Your task to perform on an android device: turn vacation reply on in the gmail app Image 0: 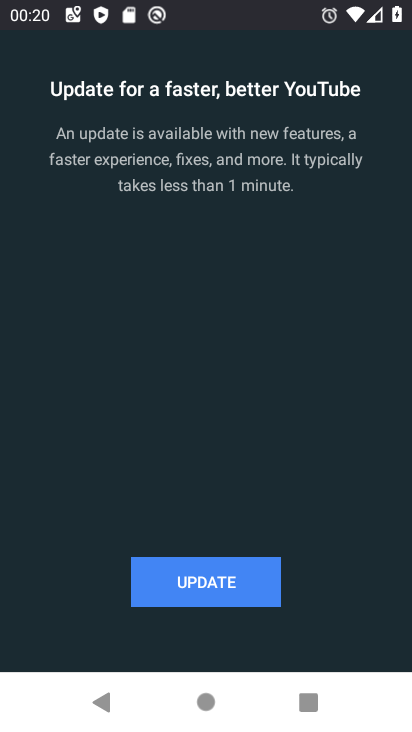
Step 0: press back button
Your task to perform on an android device: turn vacation reply on in the gmail app Image 1: 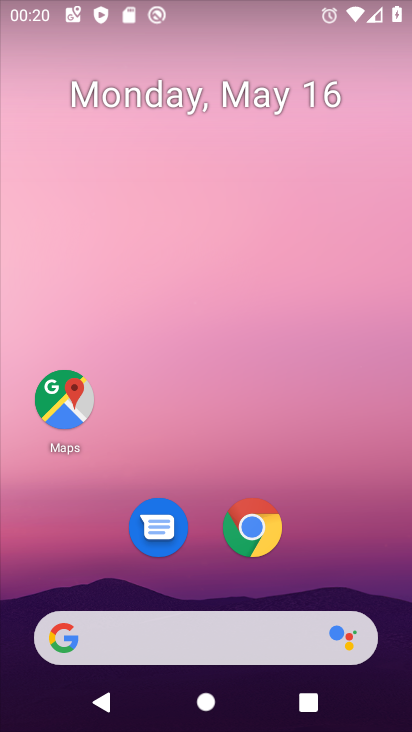
Step 1: drag from (388, 546) to (411, 415)
Your task to perform on an android device: turn vacation reply on in the gmail app Image 2: 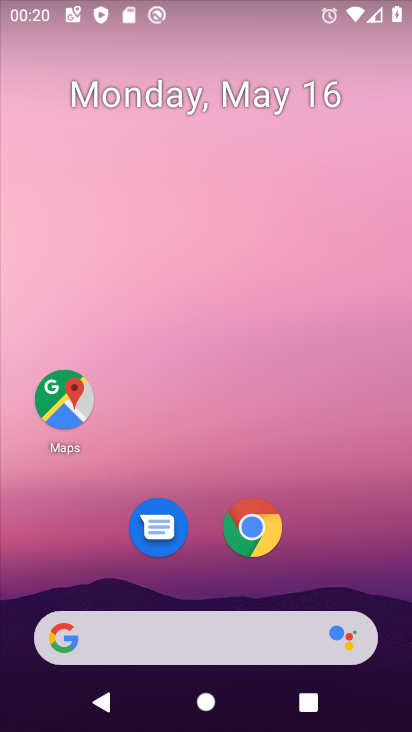
Step 2: drag from (377, 521) to (377, 370)
Your task to perform on an android device: turn vacation reply on in the gmail app Image 3: 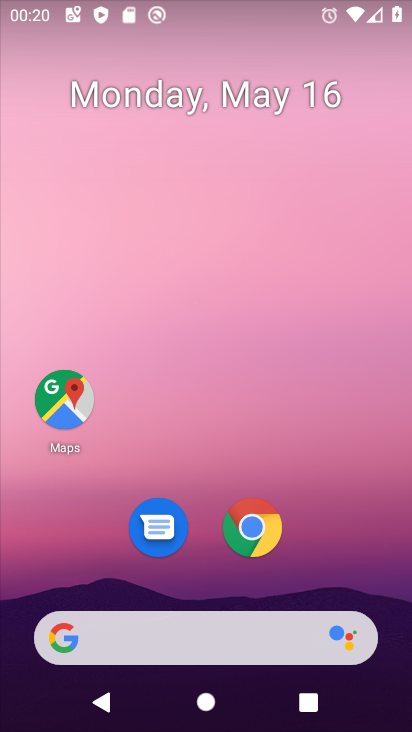
Step 3: drag from (356, 500) to (360, 114)
Your task to perform on an android device: turn vacation reply on in the gmail app Image 4: 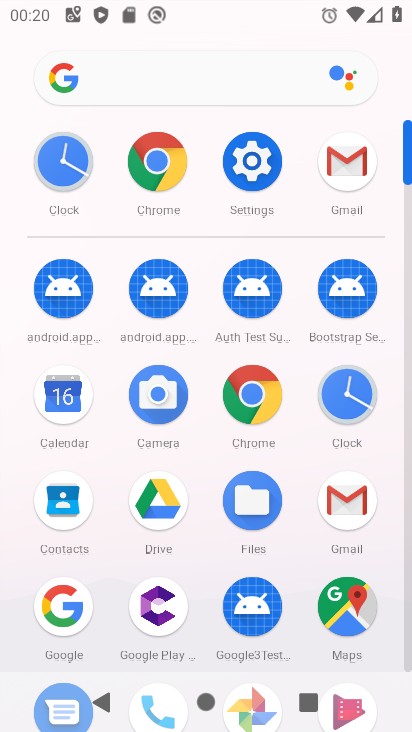
Step 4: click (350, 186)
Your task to perform on an android device: turn vacation reply on in the gmail app Image 5: 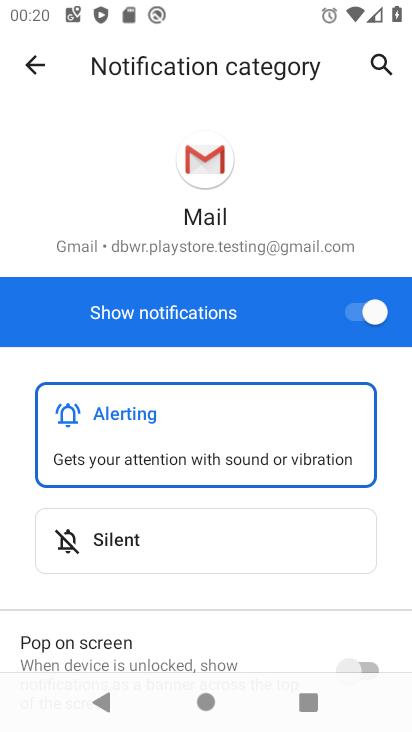
Step 5: task complete